Your task to perform on an android device: Go to Amazon Image 0: 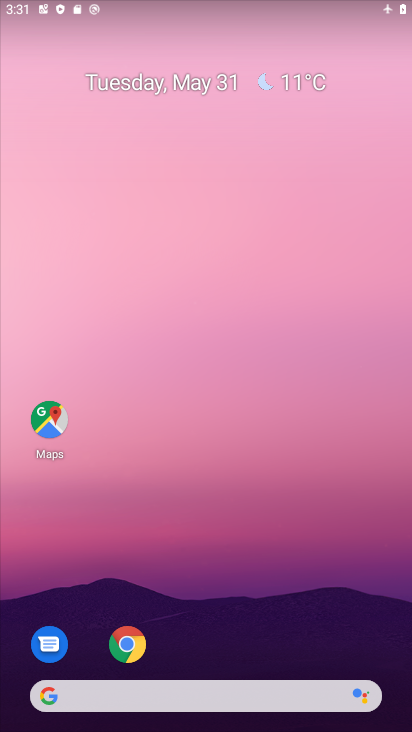
Step 0: click (141, 645)
Your task to perform on an android device: Go to Amazon Image 1: 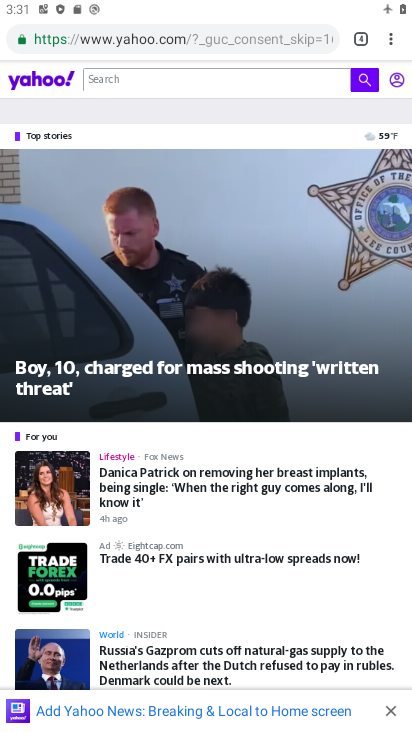
Step 1: click (364, 38)
Your task to perform on an android device: Go to Amazon Image 2: 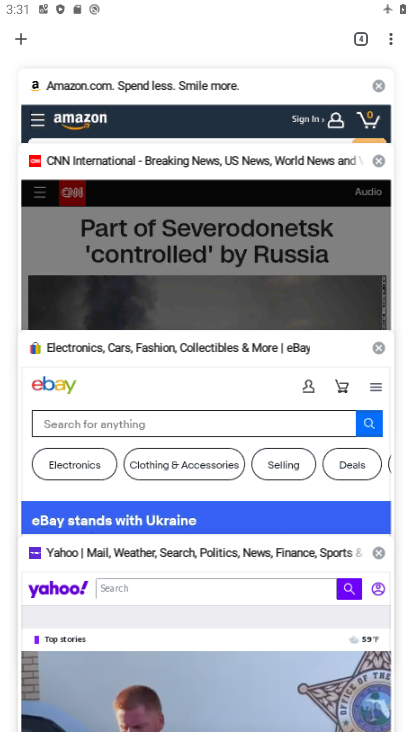
Step 2: click (118, 93)
Your task to perform on an android device: Go to Amazon Image 3: 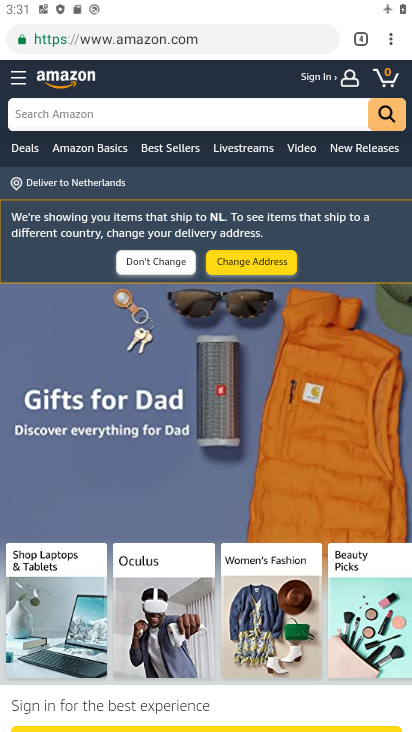
Step 3: task complete